Your task to perform on an android device: Go to location settings Image 0: 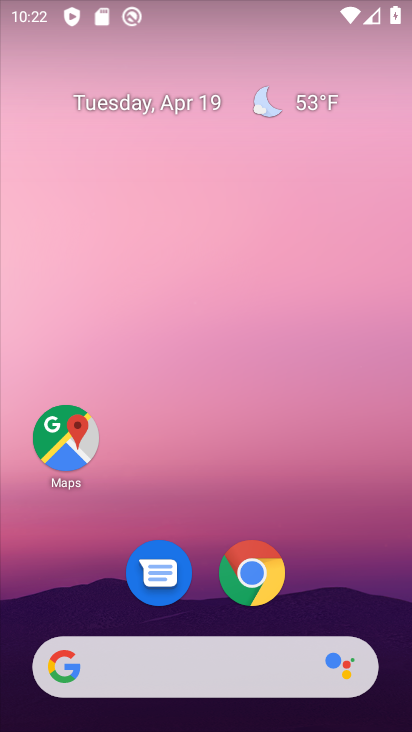
Step 0: drag from (209, 729) to (189, 31)
Your task to perform on an android device: Go to location settings Image 1: 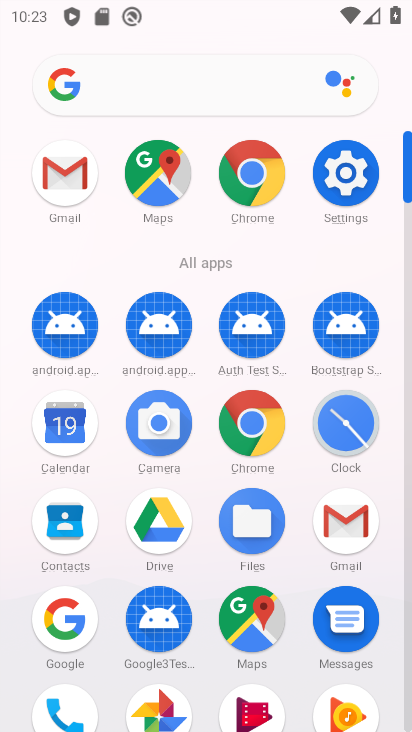
Step 1: click (342, 169)
Your task to perform on an android device: Go to location settings Image 2: 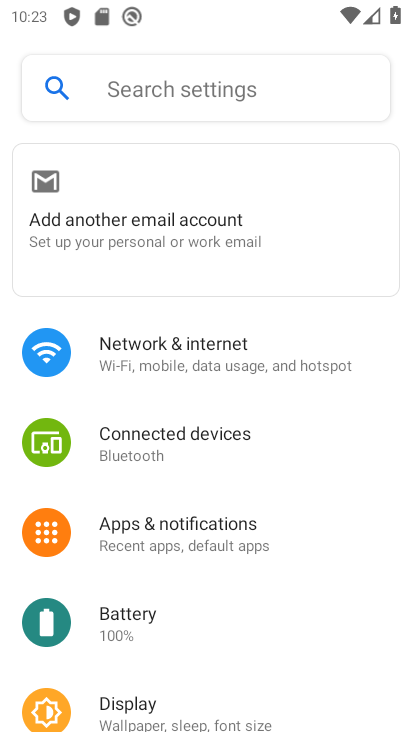
Step 2: drag from (204, 696) to (221, 401)
Your task to perform on an android device: Go to location settings Image 3: 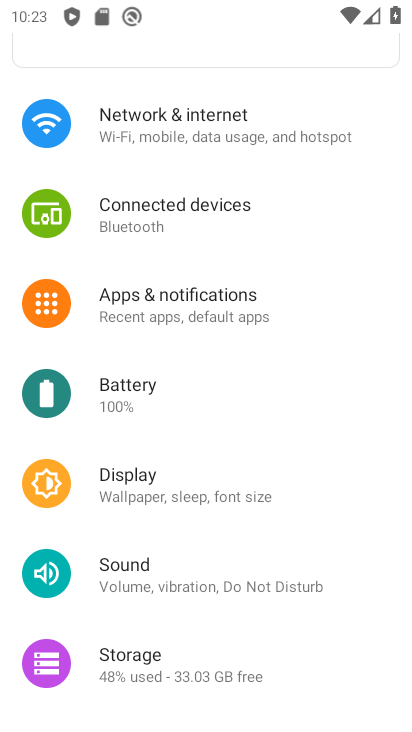
Step 3: drag from (198, 643) to (210, 249)
Your task to perform on an android device: Go to location settings Image 4: 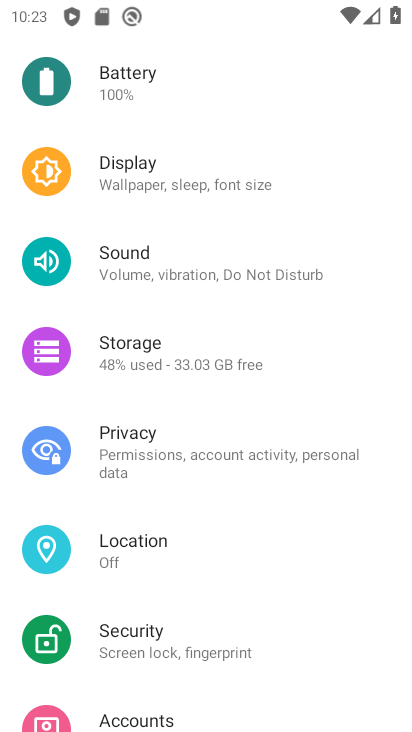
Step 4: click (116, 541)
Your task to perform on an android device: Go to location settings Image 5: 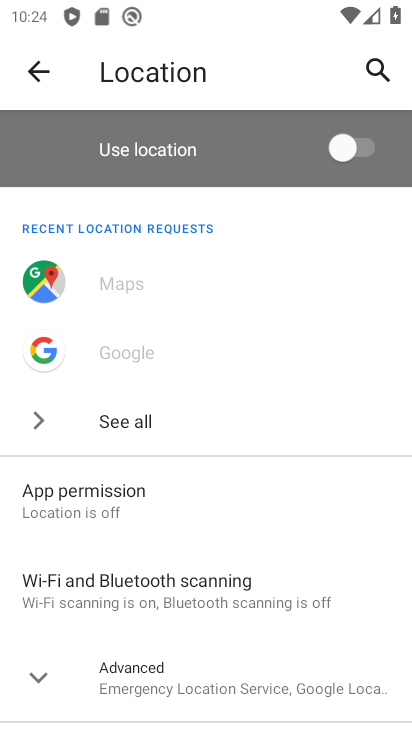
Step 5: task complete